Your task to perform on an android device: Open wifi settings Image 0: 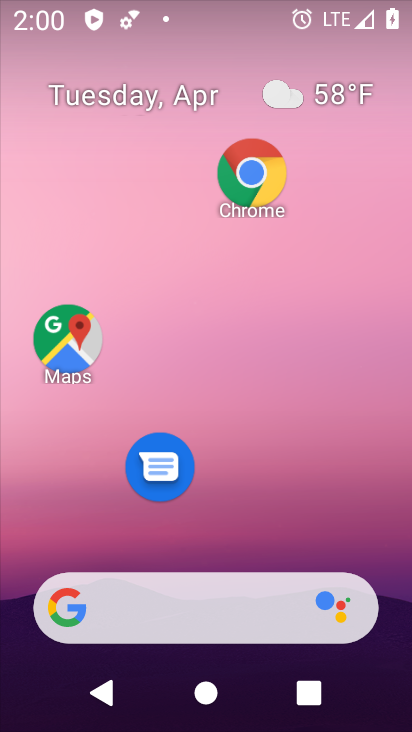
Step 0: drag from (230, 507) to (237, 117)
Your task to perform on an android device: Open wifi settings Image 1: 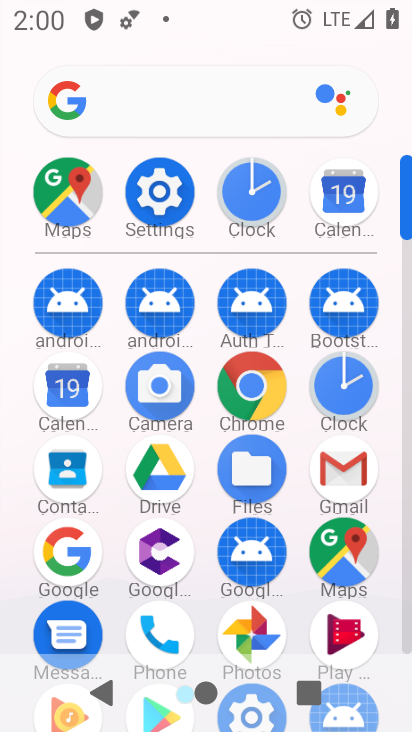
Step 1: click (140, 179)
Your task to perform on an android device: Open wifi settings Image 2: 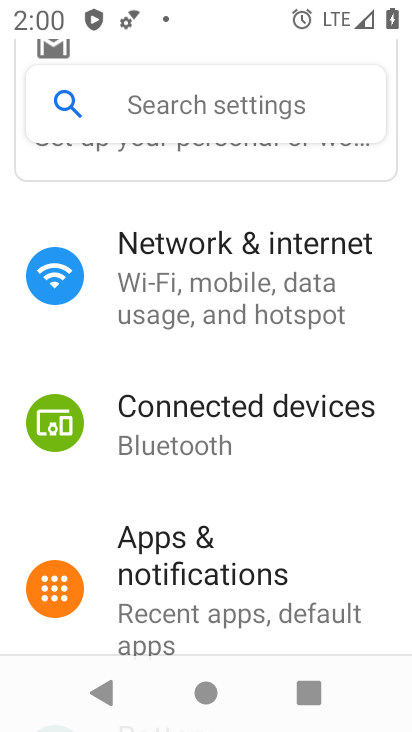
Step 2: drag from (231, 312) to (255, 620)
Your task to perform on an android device: Open wifi settings Image 3: 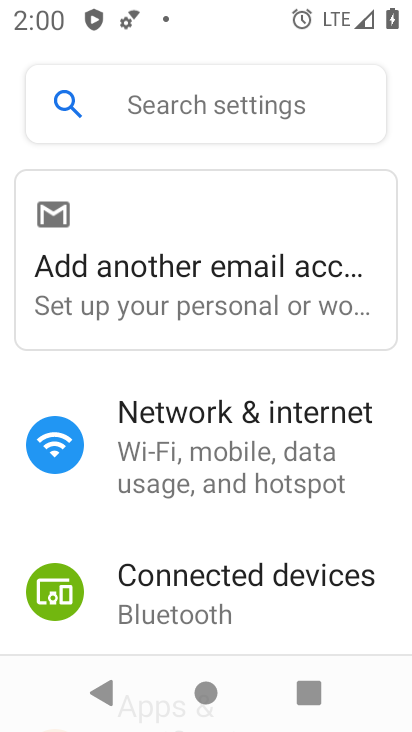
Step 3: click (245, 460)
Your task to perform on an android device: Open wifi settings Image 4: 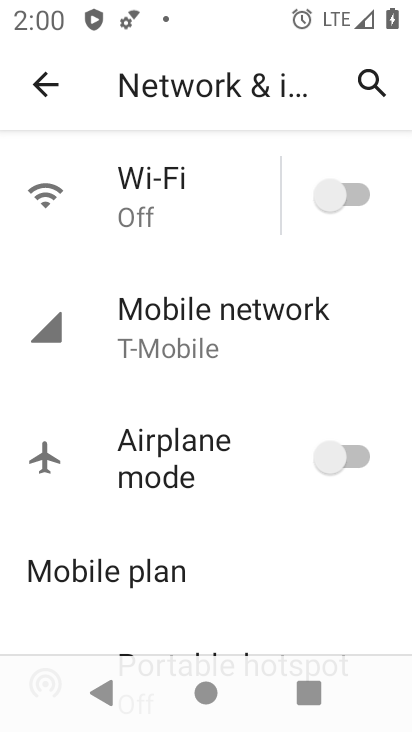
Step 4: click (131, 191)
Your task to perform on an android device: Open wifi settings Image 5: 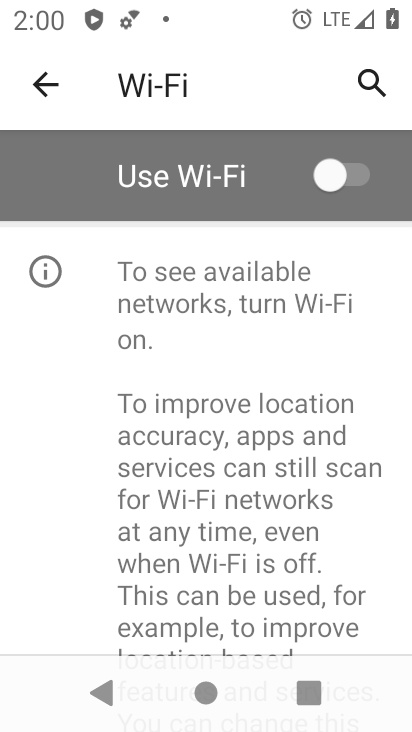
Step 5: task complete